Your task to perform on an android device: Go to accessibility settings Image 0: 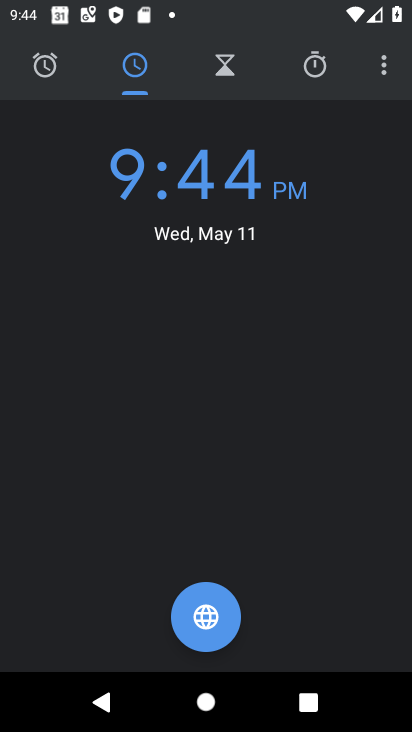
Step 0: press home button
Your task to perform on an android device: Go to accessibility settings Image 1: 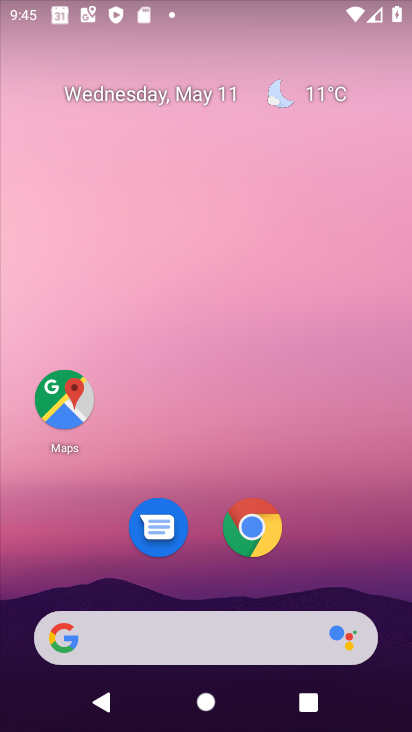
Step 1: drag from (349, 510) to (258, 7)
Your task to perform on an android device: Go to accessibility settings Image 2: 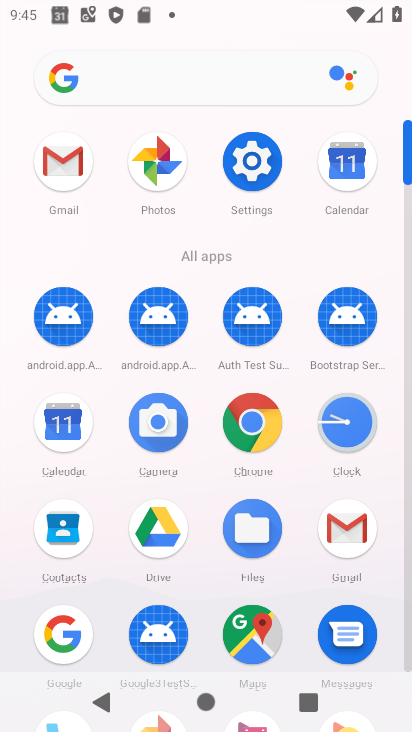
Step 2: click (256, 161)
Your task to perform on an android device: Go to accessibility settings Image 3: 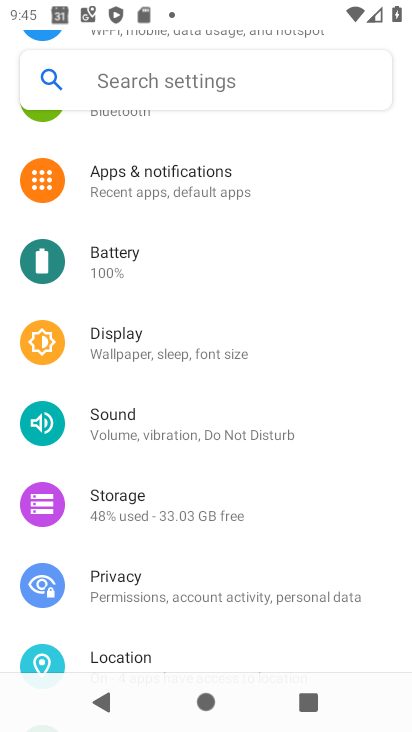
Step 3: click (255, 161)
Your task to perform on an android device: Go to accessibility settings Image 4: 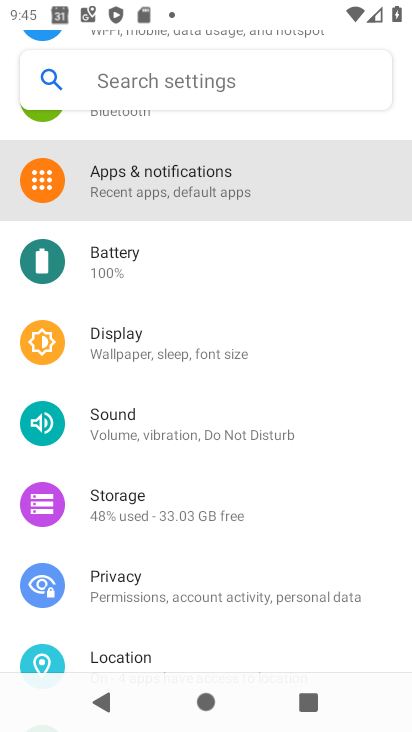
Step 4: drag from (255, 161) to (253, 611)
Your task to perform on an android device: Go to accessibility settings Image 5: 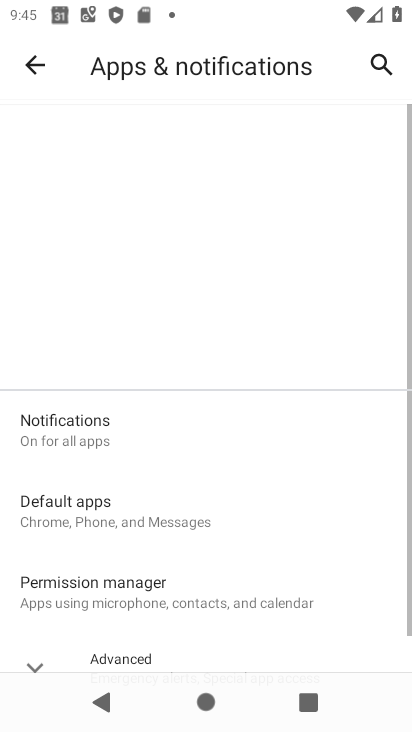
Step 5: drag from (243, 227) to (271, 569)
Your task to perform on an android device: Go to accessibility settings Image 6: 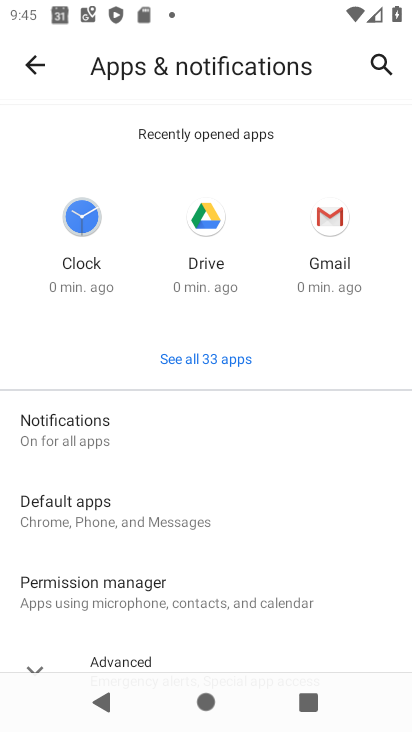
Step 6: click (32, 78)
Your task to perform on an android device: Go to accessibility settings Image 7: 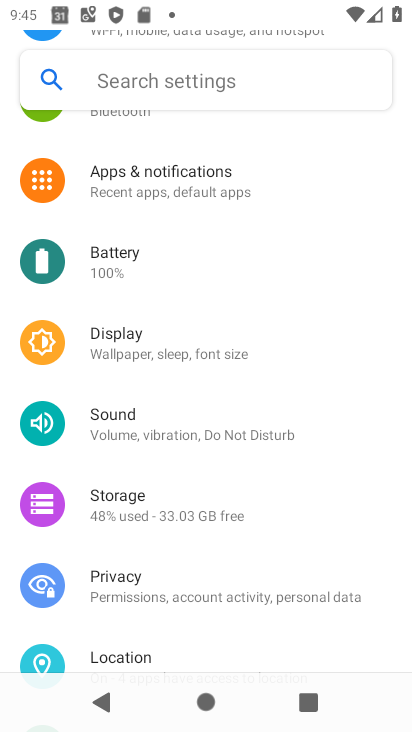
Step 7: drag from (138, 574) to (232, 152)
Your task to perform on an android device: Go to accessibility settings Image 8: 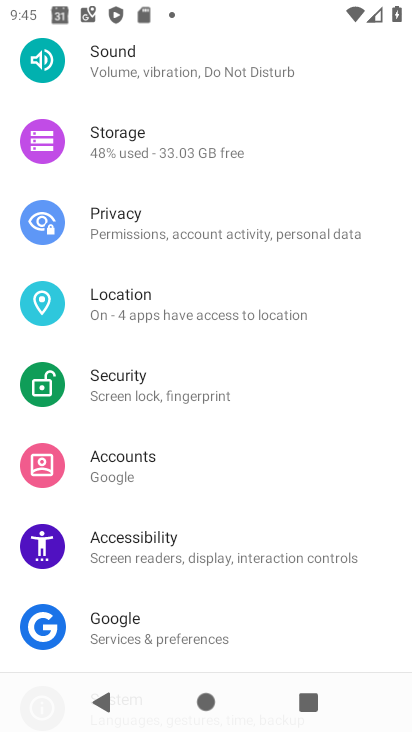
Step 8: click (171, 543)
Your task to perform on an android device: Go to accessibility settings Image 9: 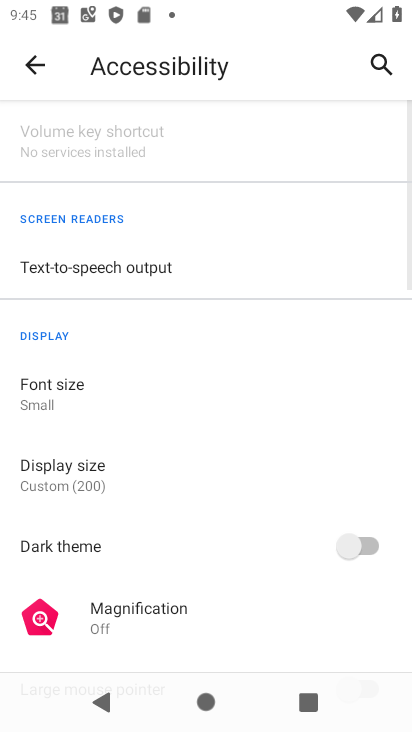
Step 9: task complete